Your task to perform on an android device: turn off sleep mode Image 0: 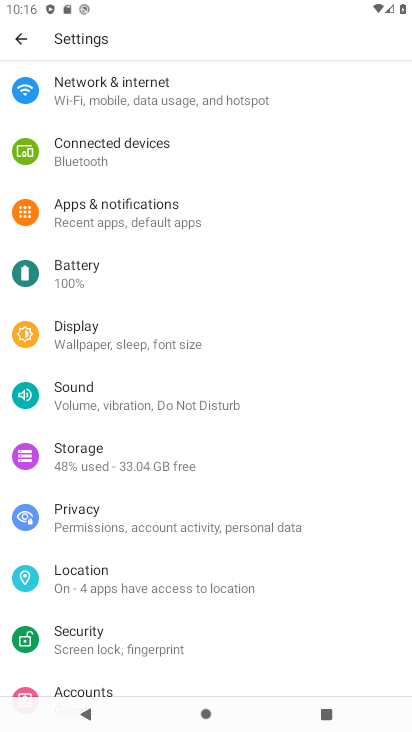
Step 0: drag from (166, 113) to (150, 487)
Your task to perform on an android device: turn off sleep mode Image 1: 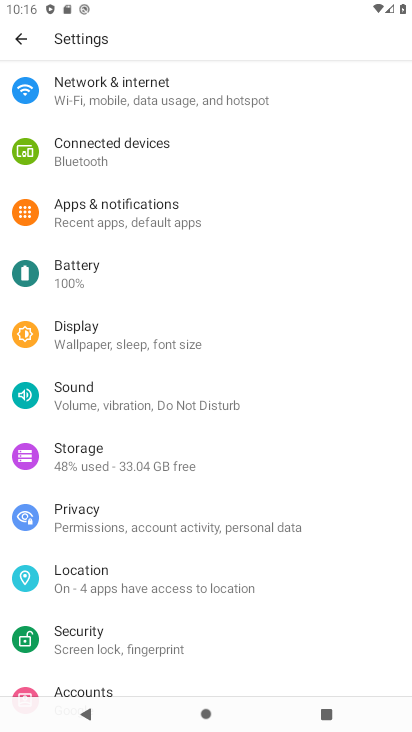
Step 1: click (109, 407)
Your task to perform on an android device: turn off sleep mode Image 2: 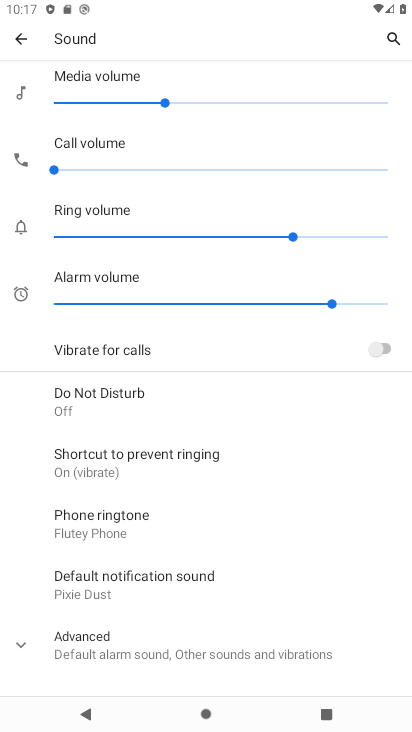
Step 2: task complete